Your task to perform on an android device: Open Maps and search for coffee Image 0: 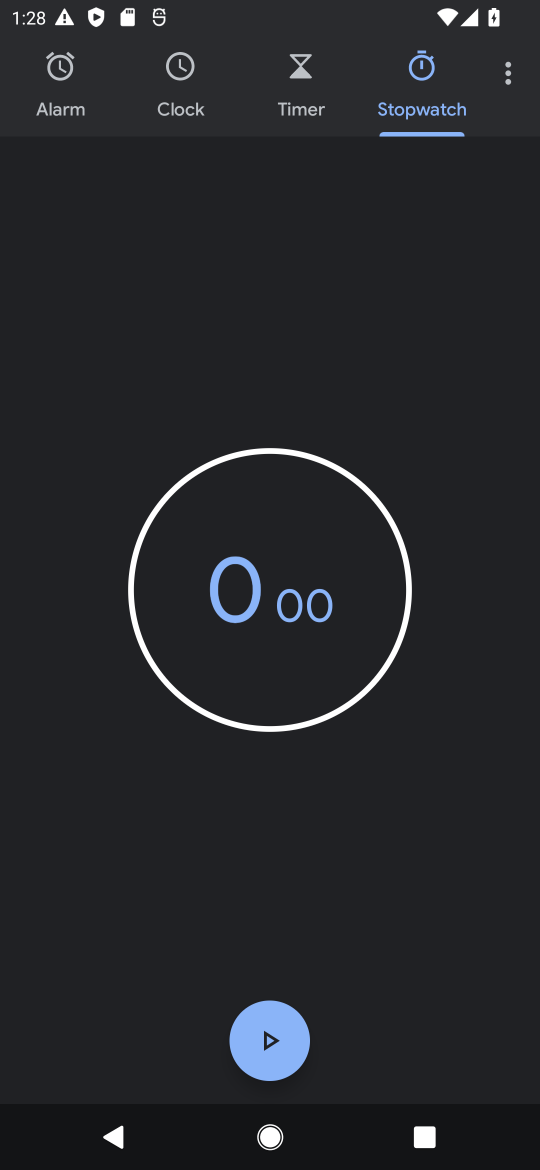
Step 0: press back button
Your task to perform on an android device: Open Maps and search for coffee Image 1: 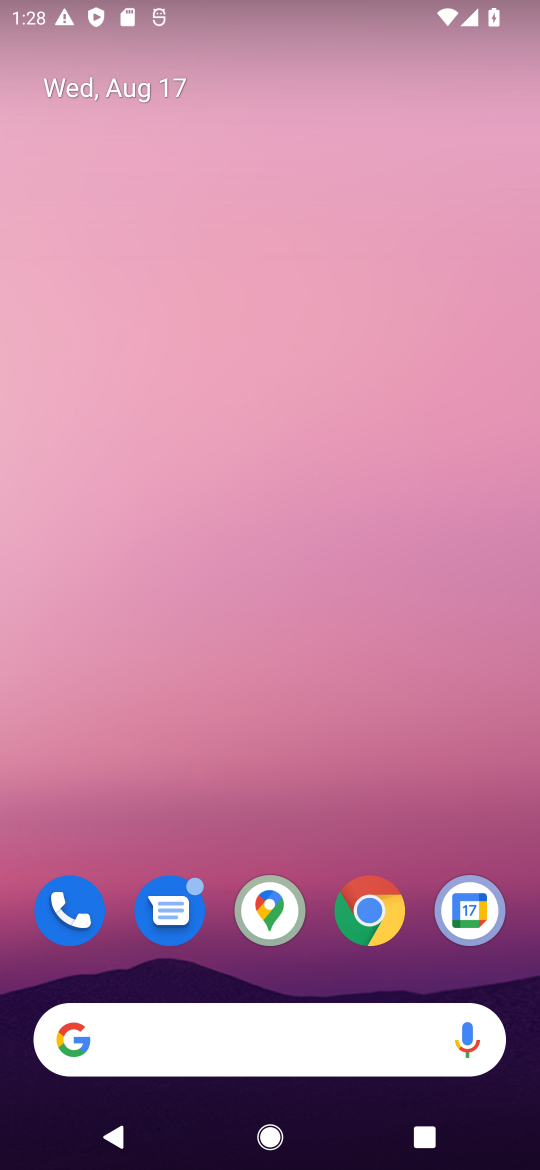
Step 1: click (263, 908)
Your task to perform on an android device: Open Maps and search for coffee Image 2: 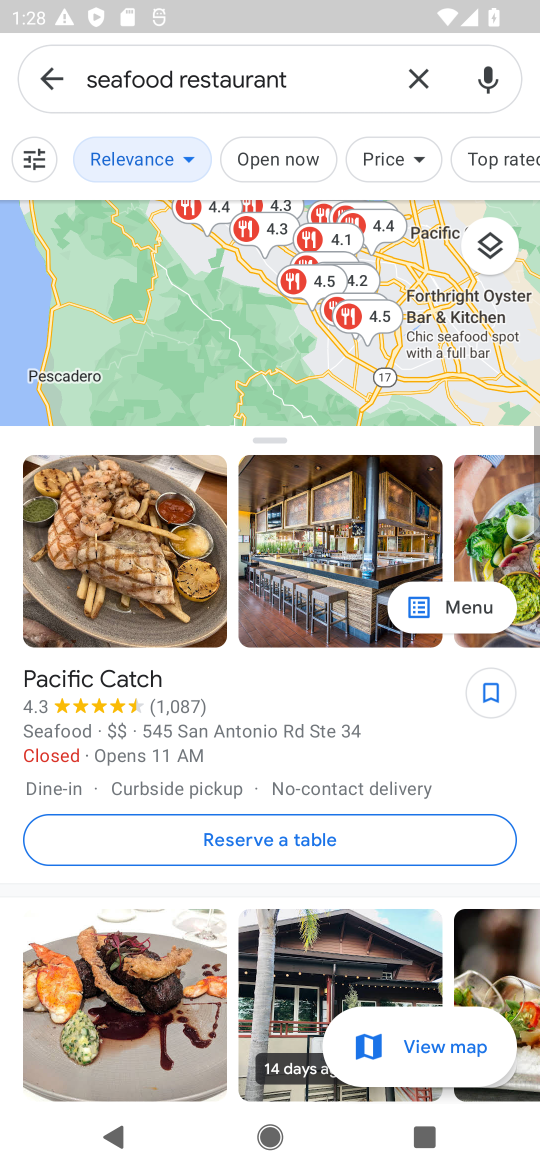
Step 2: click (415, 71)
Your task to perform on an android device: Open Maps and search for coffee Image 3: 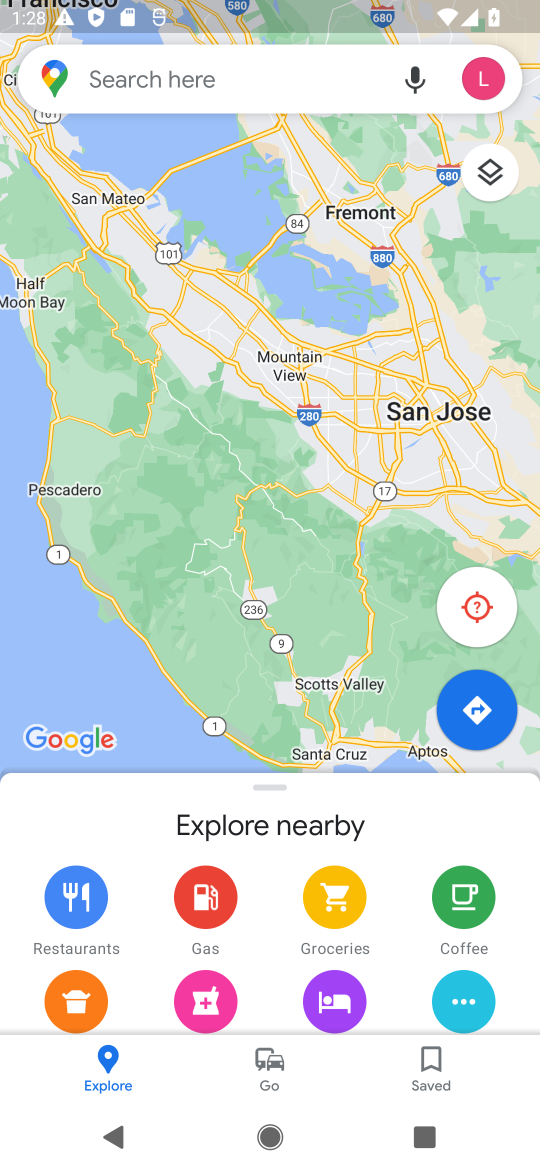
Step 3: click (176, 80)
Your task to perform on an android device: Open Maps and search for coffee Image 4: 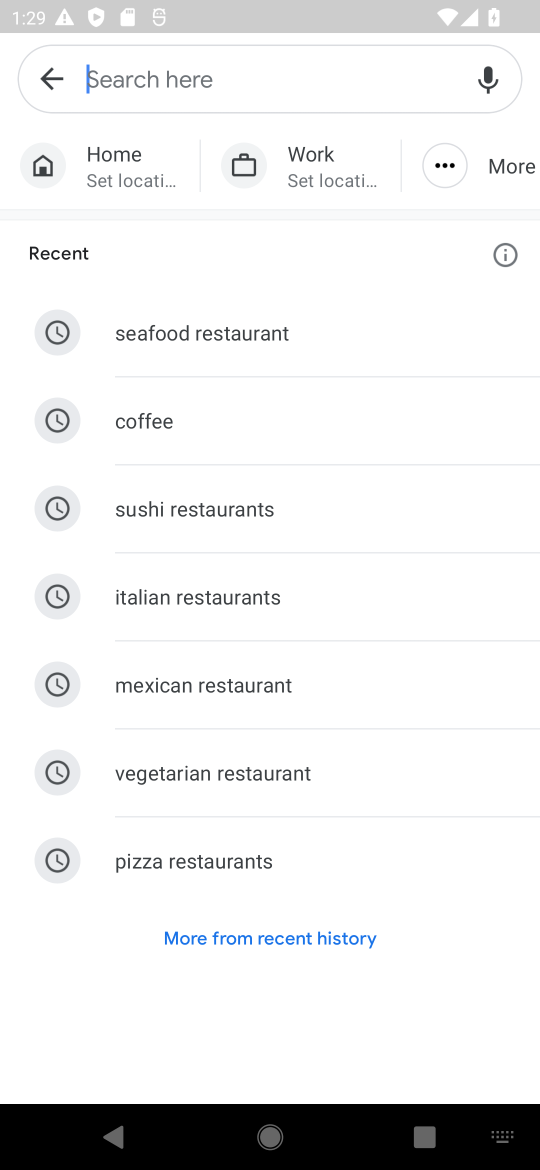
Step 4: click (210, 421)
Your task to perform on an android device: Open Maps and search for coffee Image 5: 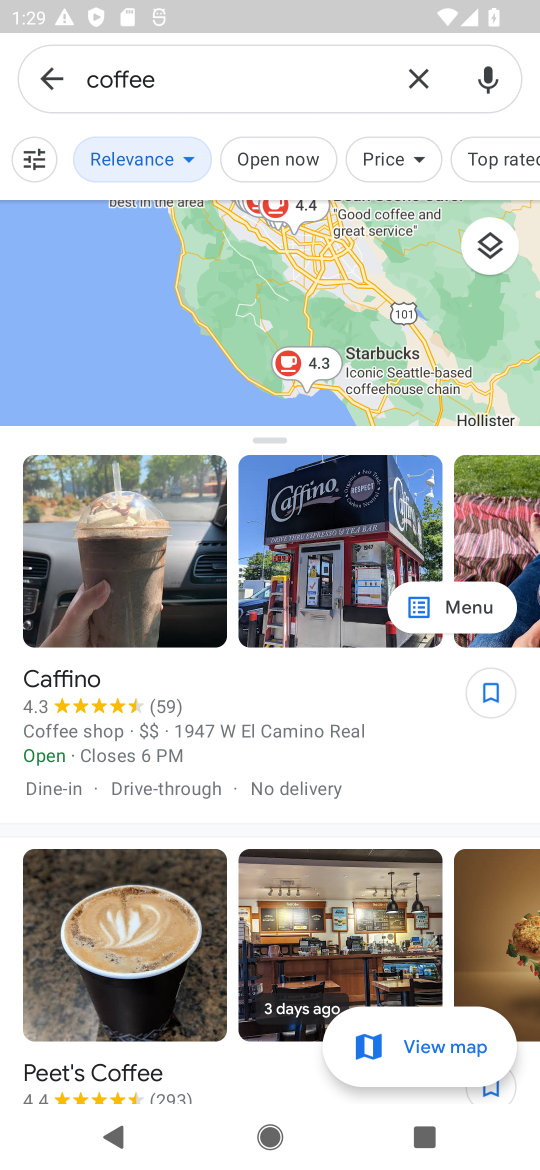
Step 5: task complete